Your task to perform on an android device: install app "Spotify: Music and Podcasts" Image 0: 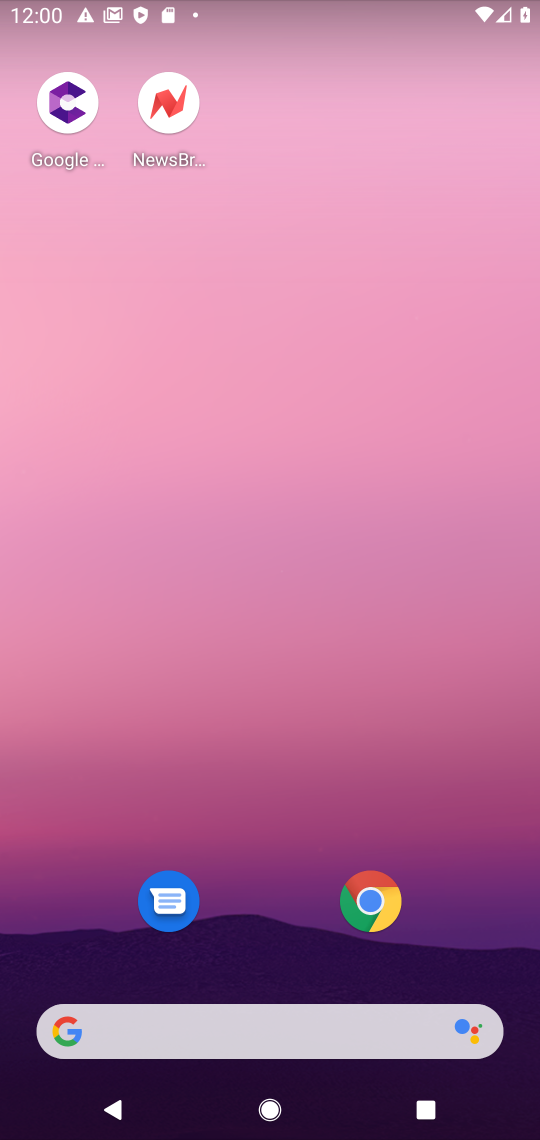
Step 0: drag from (329, 976) to (358, 179)
Your task to perform on an android device: install app "Spotify: Music and Podcasts" Image 1: 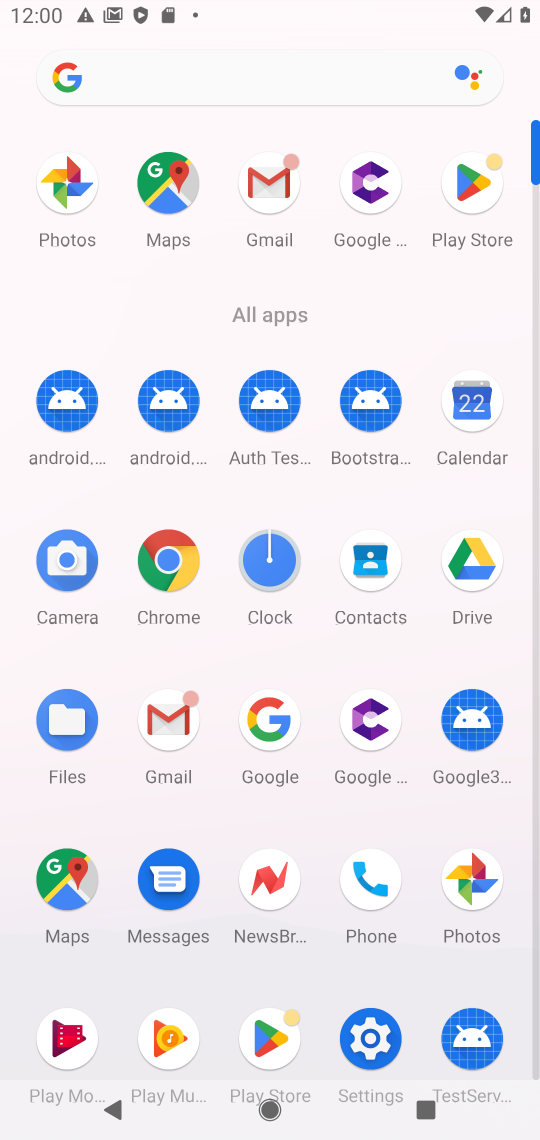
Step 1: click (485, 176)
Your task to perform on an android device: install app "Spotify: Music and Podcasts" Image 2: 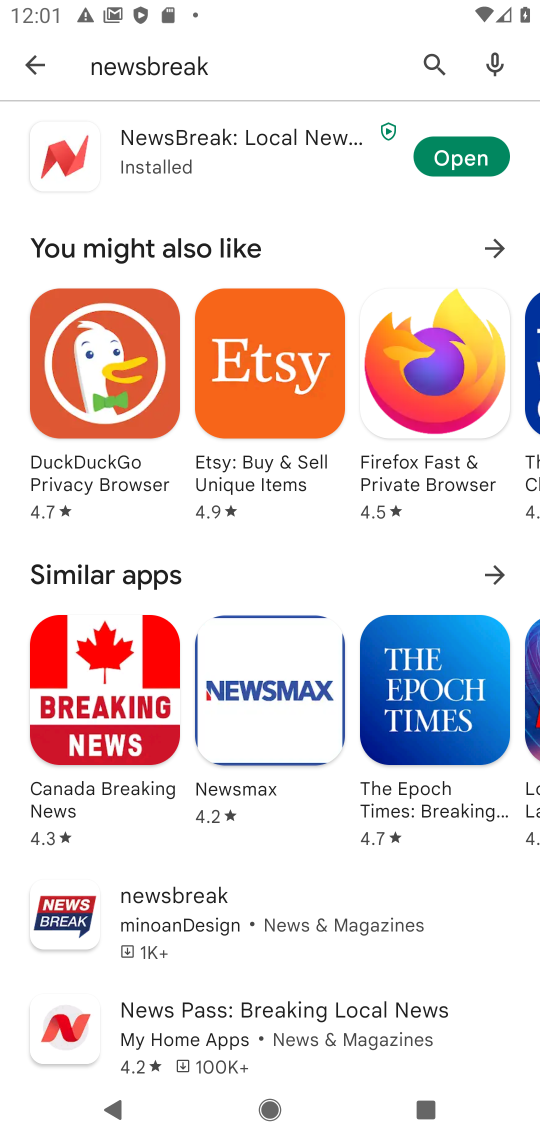
Step 2: click (426, 56)
Your task to perform on an android device: install app "Spotify: Music and Podcasts" Image 3: 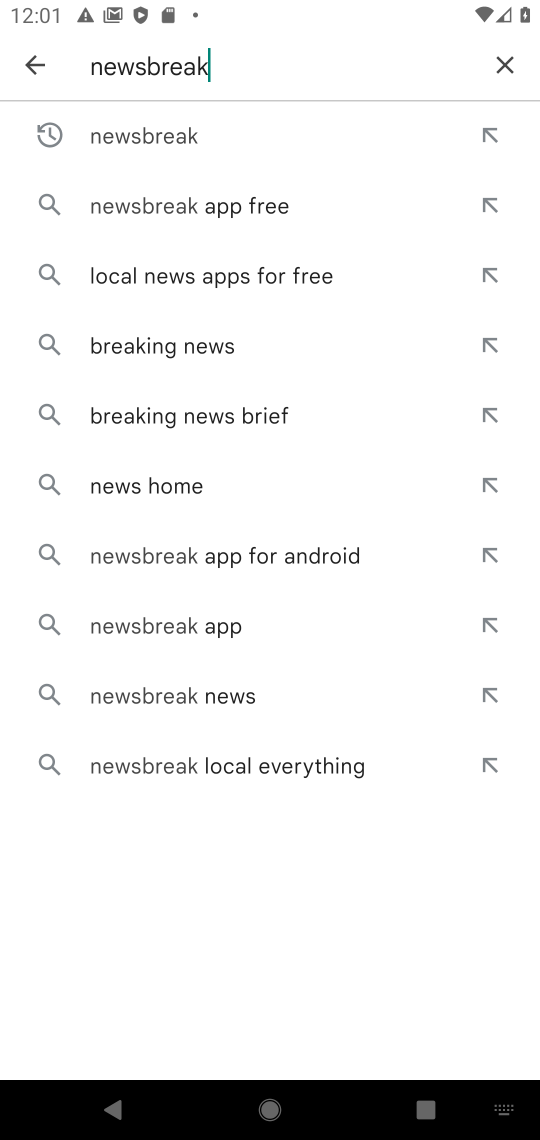
Step 3: click (496, 65)
Your task to perform on an android device: install app "Spotify: Music and Podcasts" Image 4: 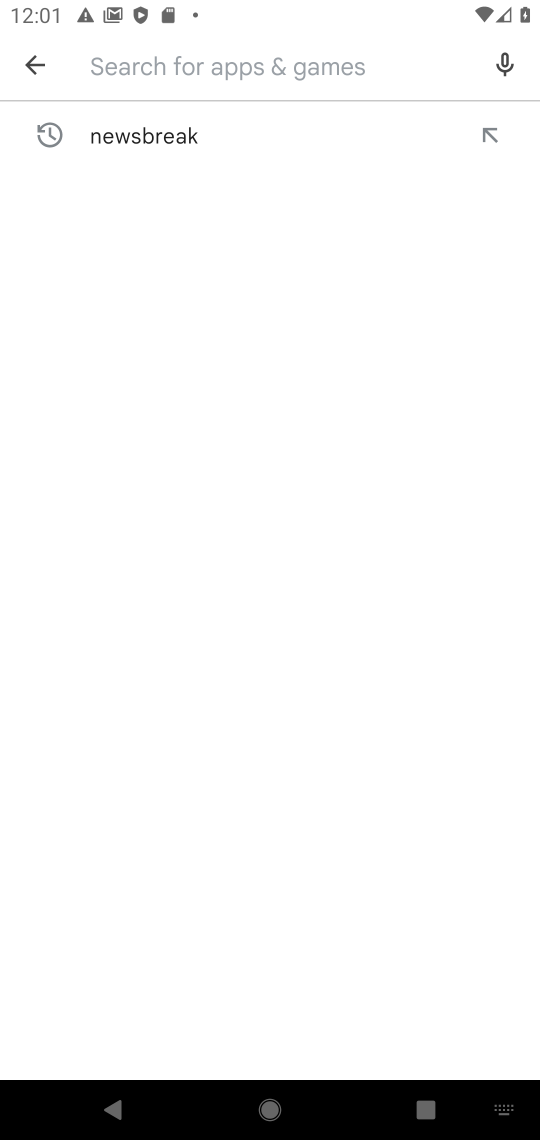
Step 4: type "spotify"
Your task to perform on an android device: install app "Spotify: Music and Podcasts" Image 5: 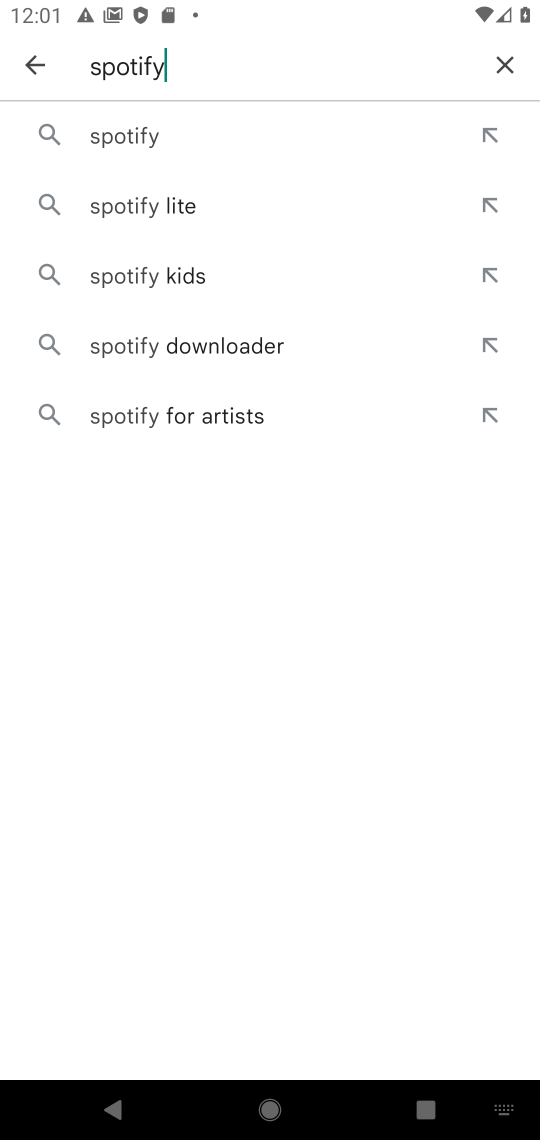
Step 5: click (201, 141)
Your task to perform on an android device: install app "Spotify: Music and Podcasts" Image 6: 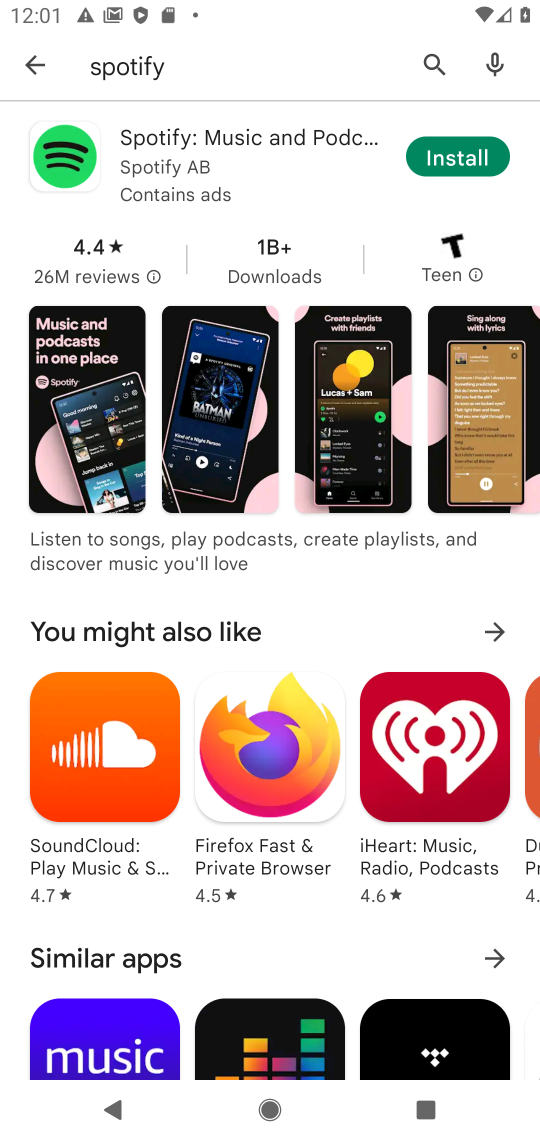
Step 6: click (469, 173)
Your task to perform on an android device: install app "Spotify: Music and Podcasts" Image 7: 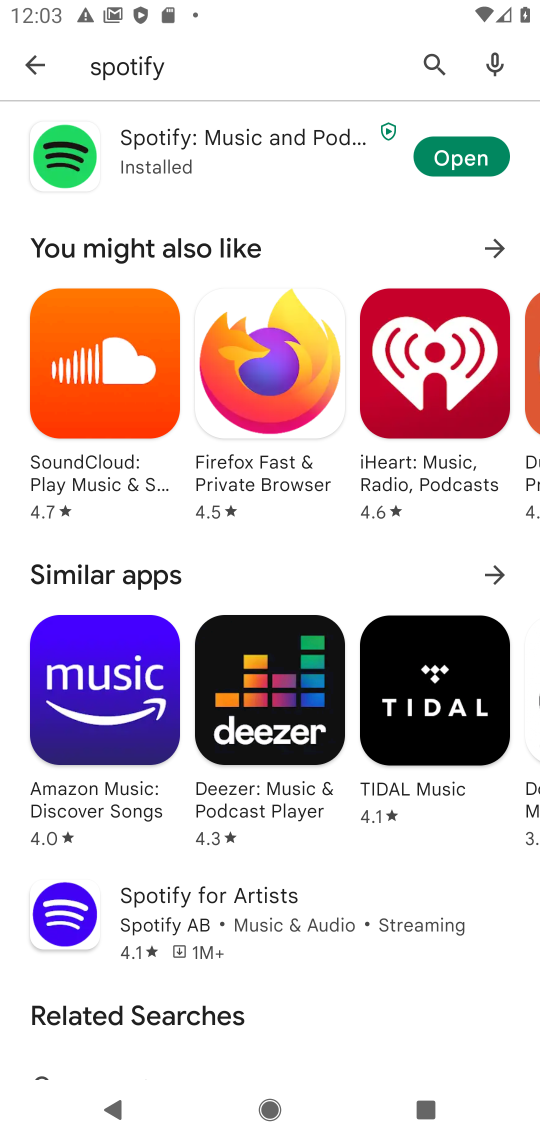
Step 7: task complete